Your task to perform on an android device: toggle notifications settings in the gmail app Image 0: 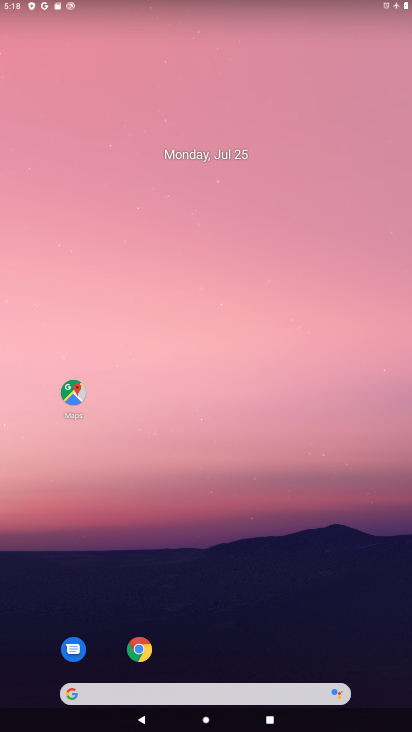
Step 0: drag from (268, 715) to (315, 31)
Your task to perform on an android device: toggle notifications settings in the gmail app Image 1: 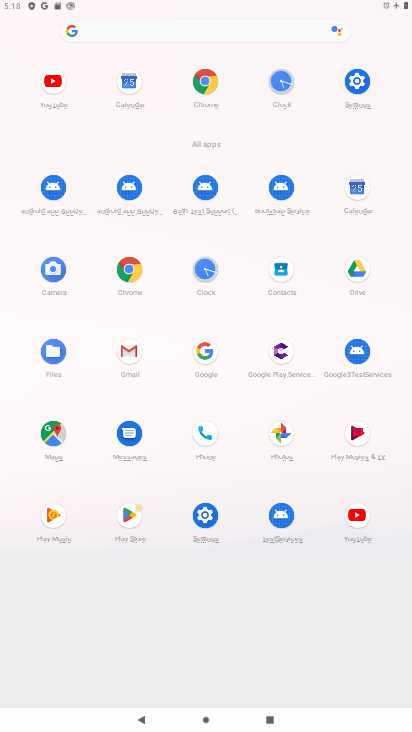
Step 1: click (116, 349)
Your task to perform on an android device: toggle notifications settings in the gmail app Image 2: 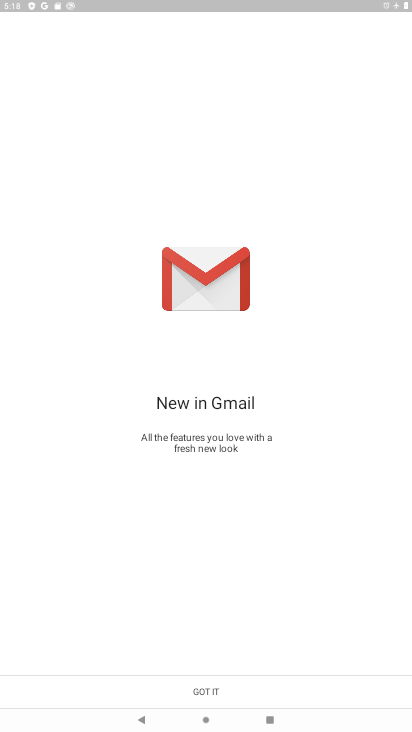
Step 2: click (216, 695)
Your task to perform on an android device: toggle notifications settings in the gmail app Image 3: 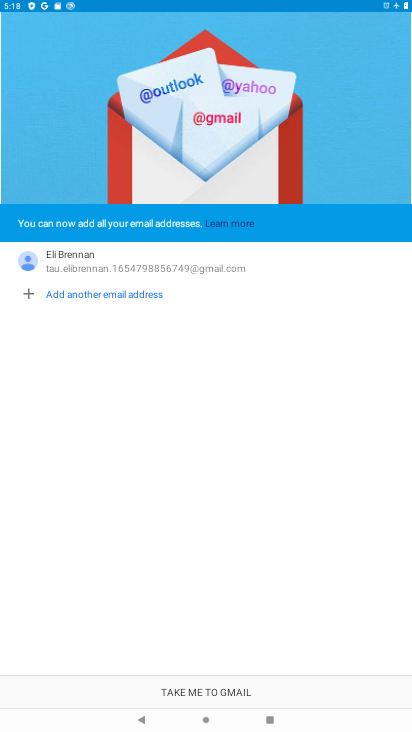
Step 3: click (175, 690)
Your task to perform on an android device: toggle notifications settings in the gmail app Image 4: 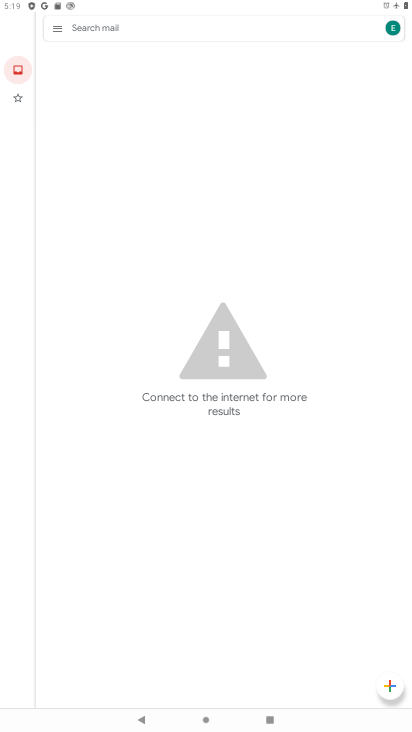
Step 4: click (56, 30)
Your task to perform on an android device: toggle notifications settings in the gmail app Image 5: 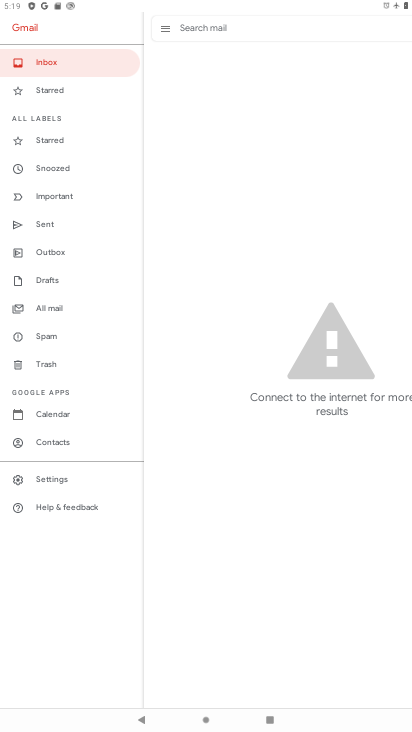
Step 5: click (73, 474)
Your task to perform on an android device: toggle notifications settings in the gmail app Image 6: 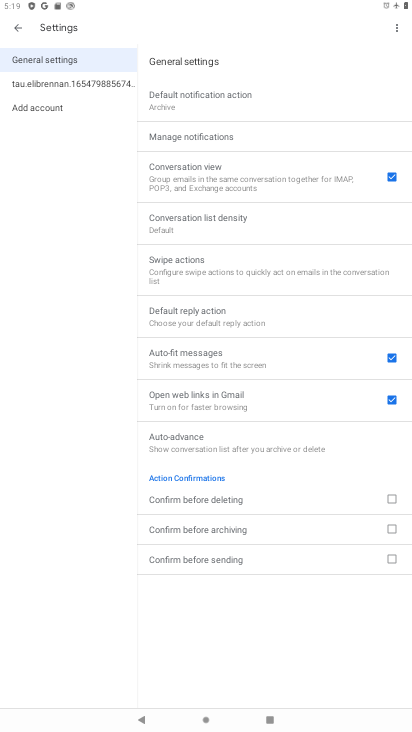
Step 6: click (101, 86)
Your task to perform on an android device: toggle notifications settings in the gmail app Image 7: 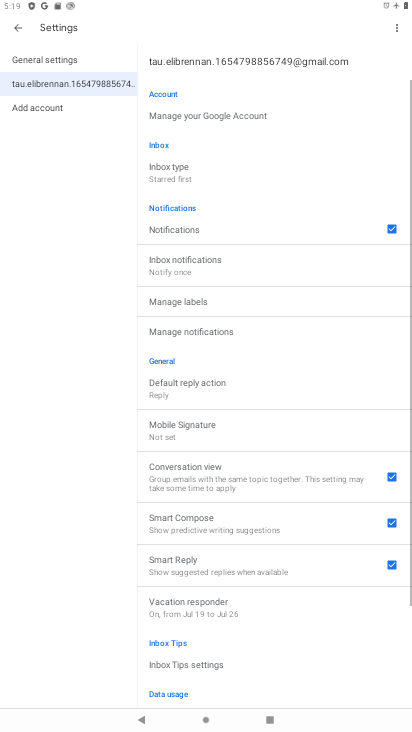
Step 7: click (214, 336)
Your task to perform on an android device: toggle notifications settings in the gmail app Image 8: 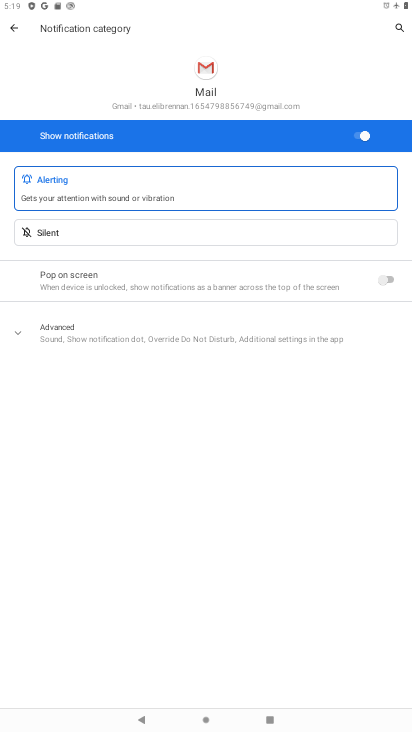
Step 8: click (362, 132)
Your task to perform on an android device: toggle notifications settings in the gmail app Image 9: 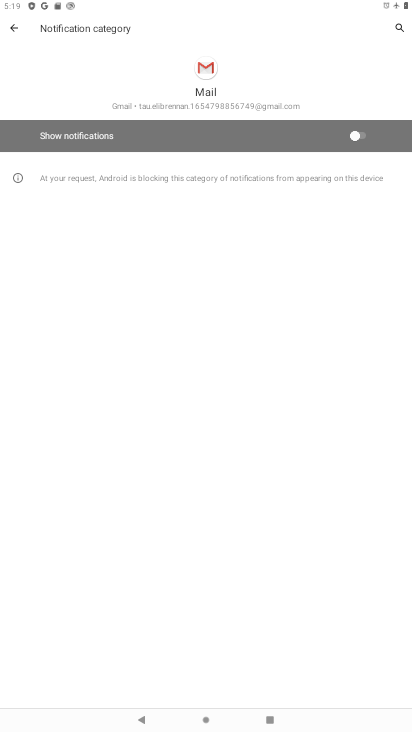
Step 9: task complete